Your task to perform on an android device: Open ESPN.com Image 0: 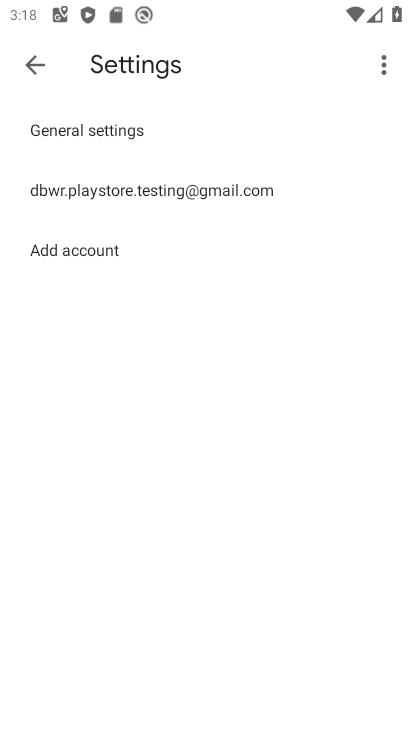
Step 0: press home button
Your task to perform on an android device: Open ESPN.com Image 1: 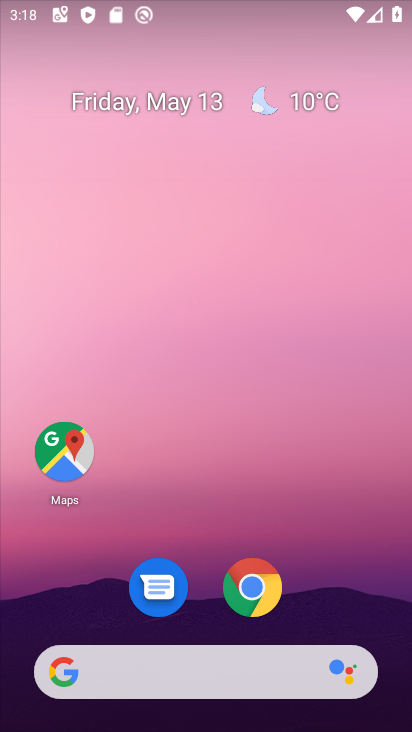
Step 1: click (266, 578)
Your task to perform on an android device: Open ESPN.com Image 2: 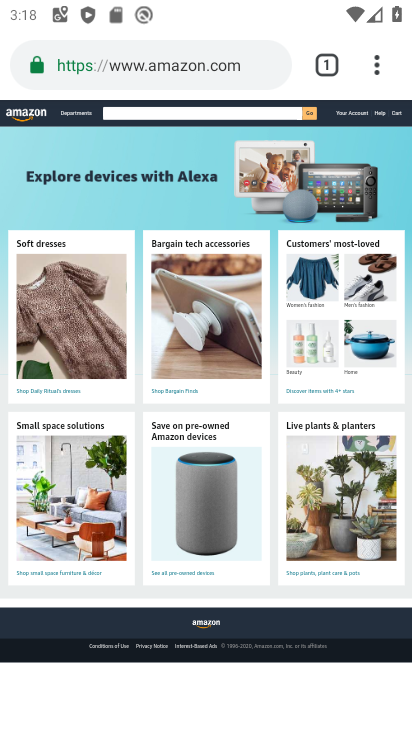
Step 2: click (197, 58)
Your task to perform on an android device: Open ESPN.com Image 3: 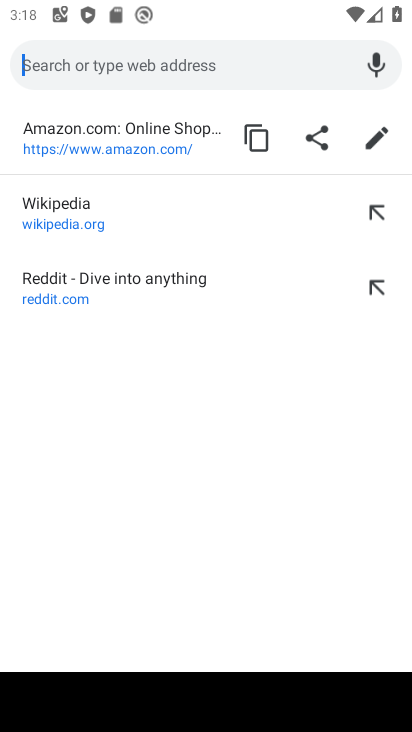
Step 3: type "ESPN.com"
Your task to perform on an android device: Open ESPN.com Image 4: 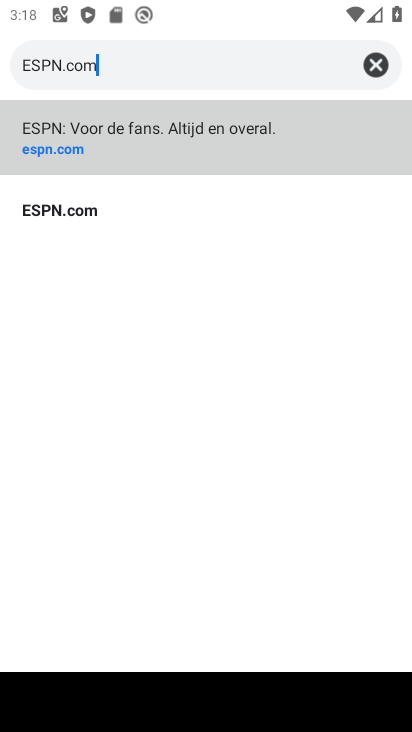
Step 4: click (137, 141)
Your task to perform on an android device: Open ESPN.com Image 5: 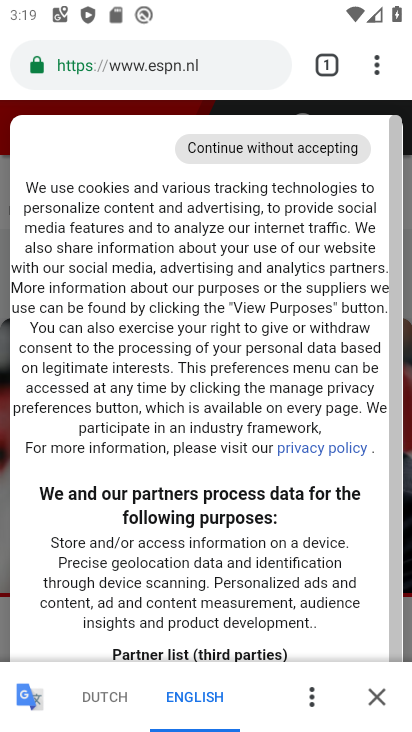
Step 5: task complete